Your task to perform on an android device: open sync settings in chrome Image 0: 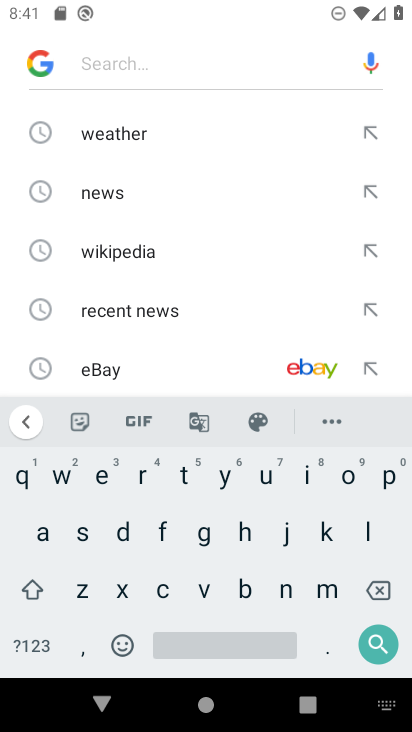
Step 0: press home button
Your task to perform on an android device: open sync settings in chrome Image 1: 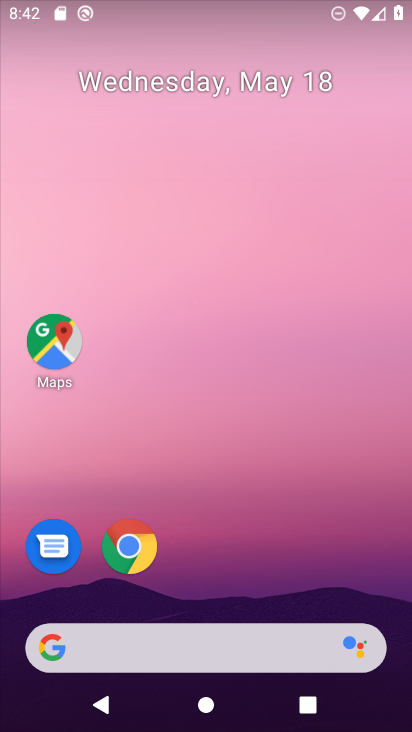
Step 1: drag from (264, 649) to (367, 278)
Your task to perform on an android device: open sync settings in chrome Image 2: 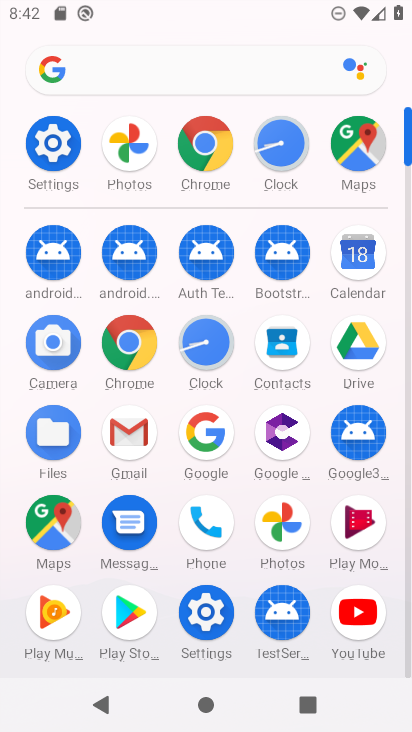
Step 2: click (127, 368)
Your task to perform on an android device: open sync settings in chrome Image 3: 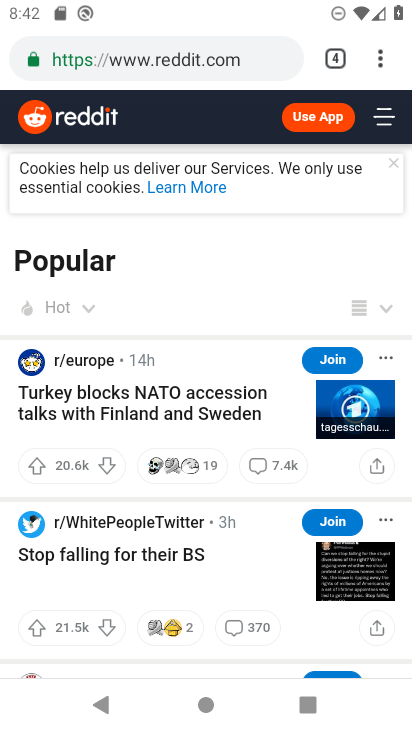
Step 3: click (379, 57)
Your task to perform on an android device: open sync settings in chrome Image 4: 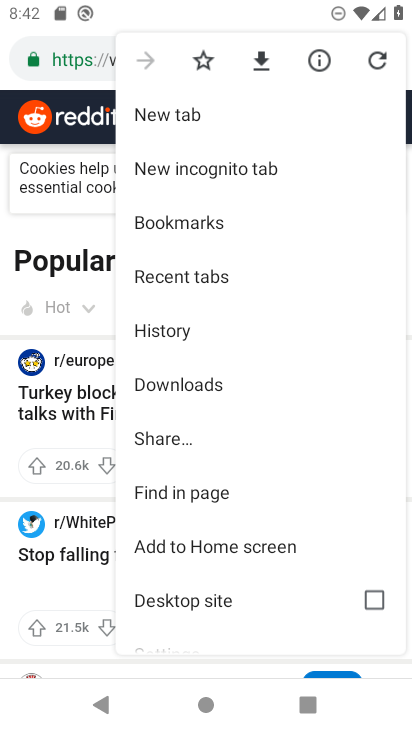
Step 4: drag from (167, 559) to (294, 309)
Your task to perform on an android device: open sync settings in chrome Image 5: 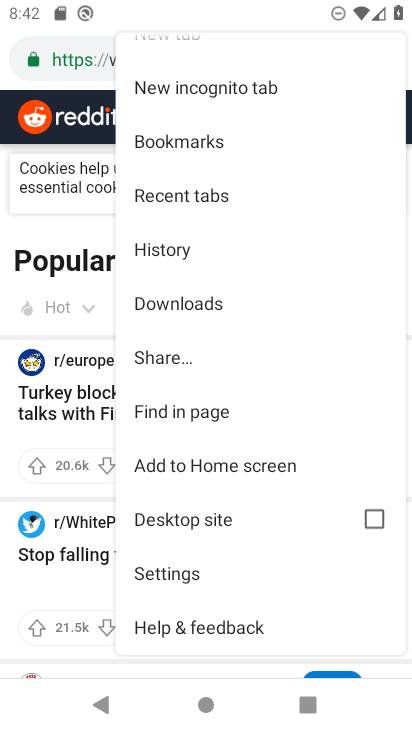
Step 5: click (178, 570)
Your task to perform on an android device: open sync settings in chrome Image 6: 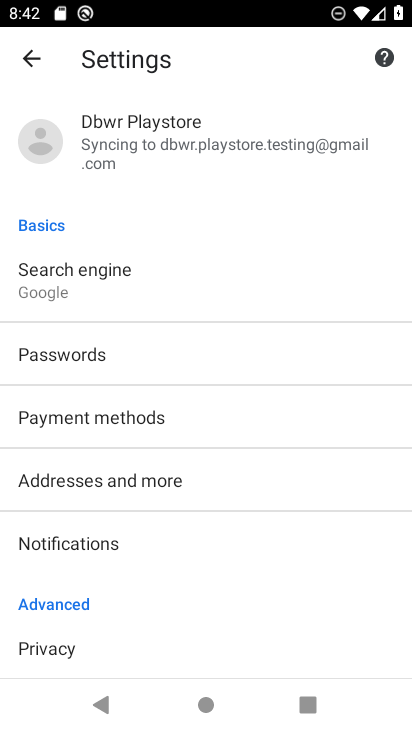
Step 6: drag from (129, 584) to (232, 389)
Your task to perform on an android device: open sync settings in chrome Image 7: 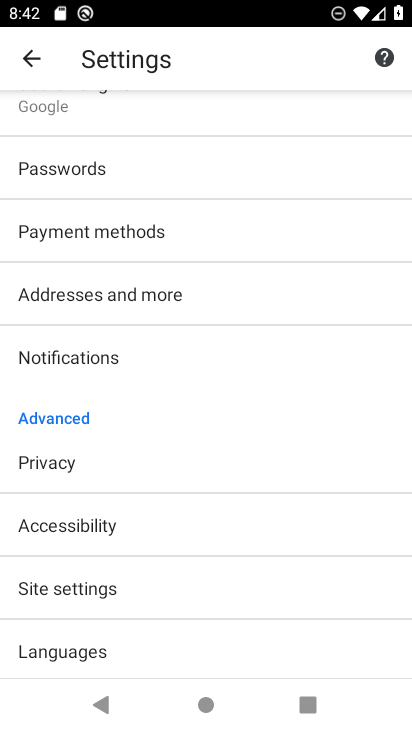
Step 7: click (55, 580)
Your task to perform on an android device: open sync settings in chrome Image 8: 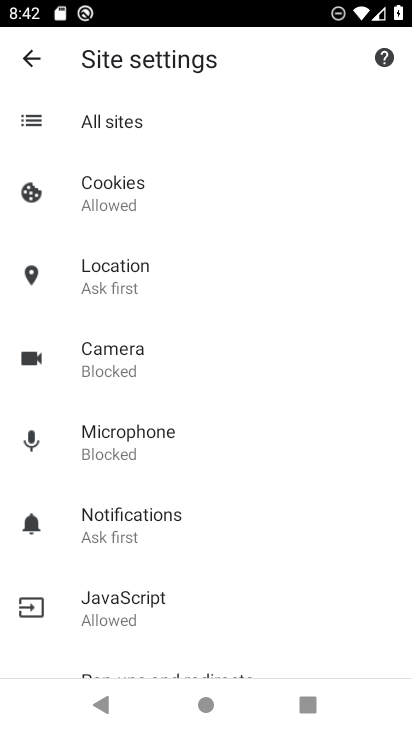
Step 8: drag from (177, 566) to (347, 254)
Your task to perform on an android device: open sync settings in chrome Image 9: 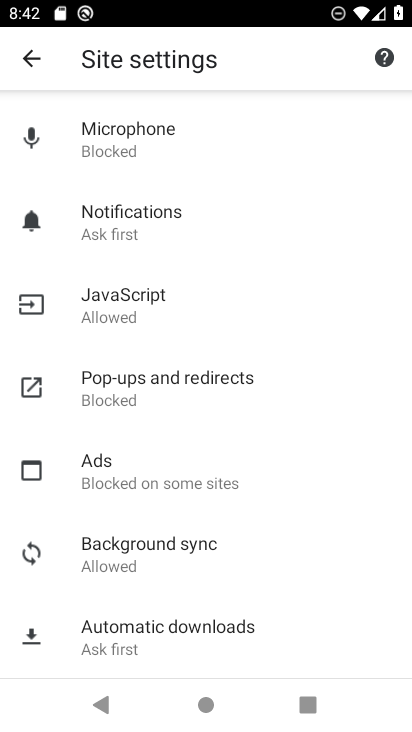
Step 9: click (147, 533)
Your task to perform on an android device: open sync settings in chrome Image 10: 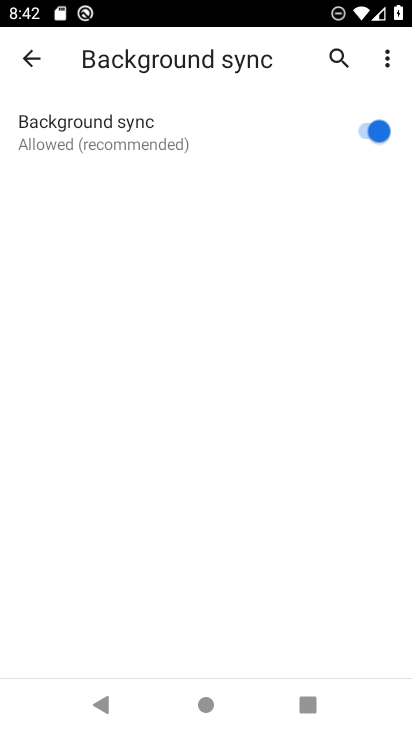
Step 10: click (301, 119)
Your task to perform on an android device: open sync settings in chrome Image 11: 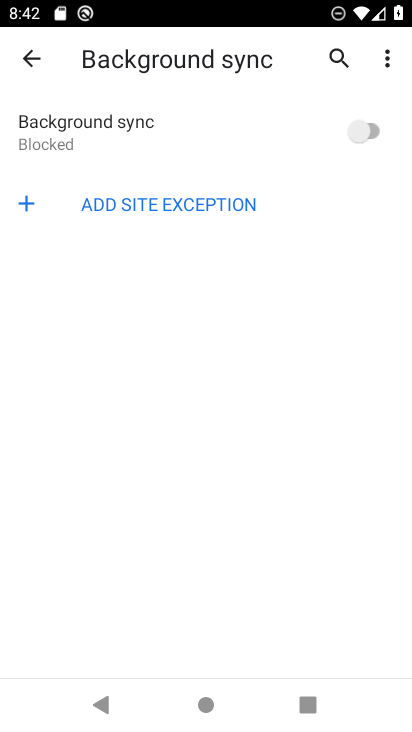
Step 11: click (300, 120)
Your task to perform on an android device: open sync settings in chrome Image 12: 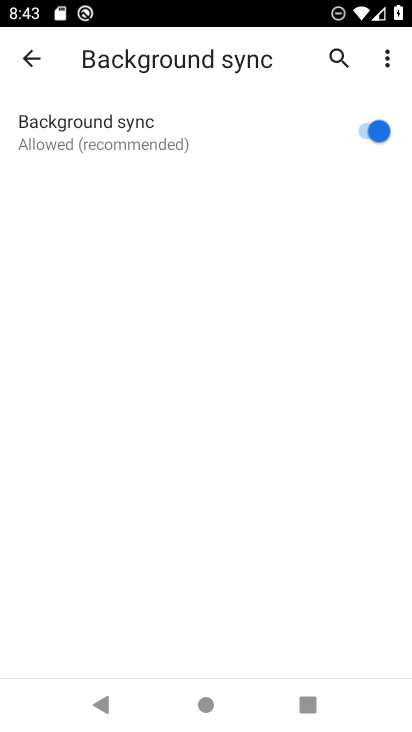
Step 12: task complete